Your task to perform on an android device: toggle airplane mode Image 0: 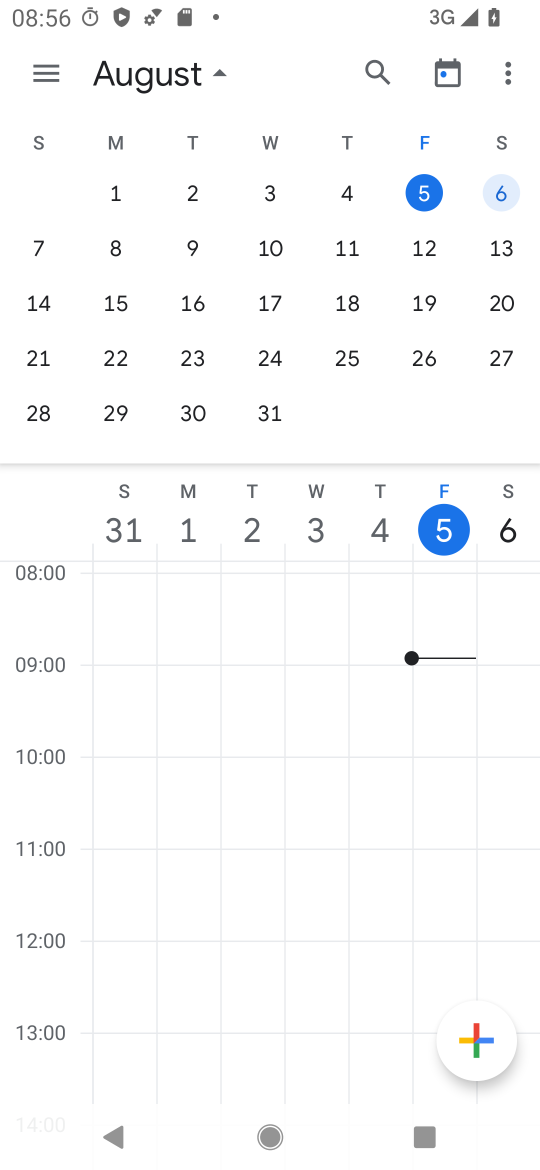
Step 0: press home button
Your task to perform on an android device: toggle airplane mode Image 1: 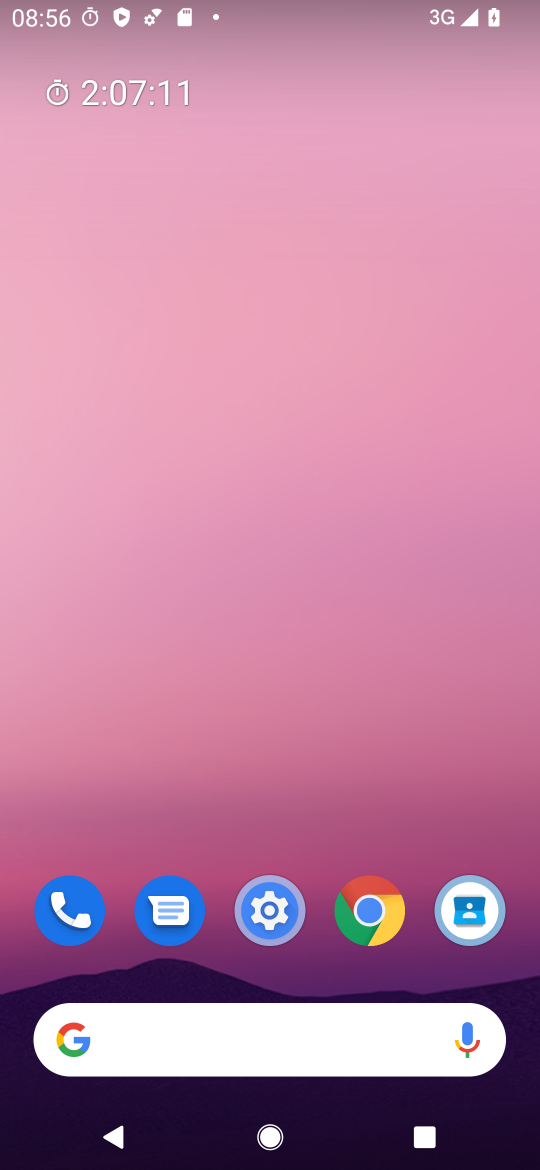
Step 1: drag from (345, 1026) to (409, 70)
Your task to perform on an android device: toggle airplane mode Image 2: 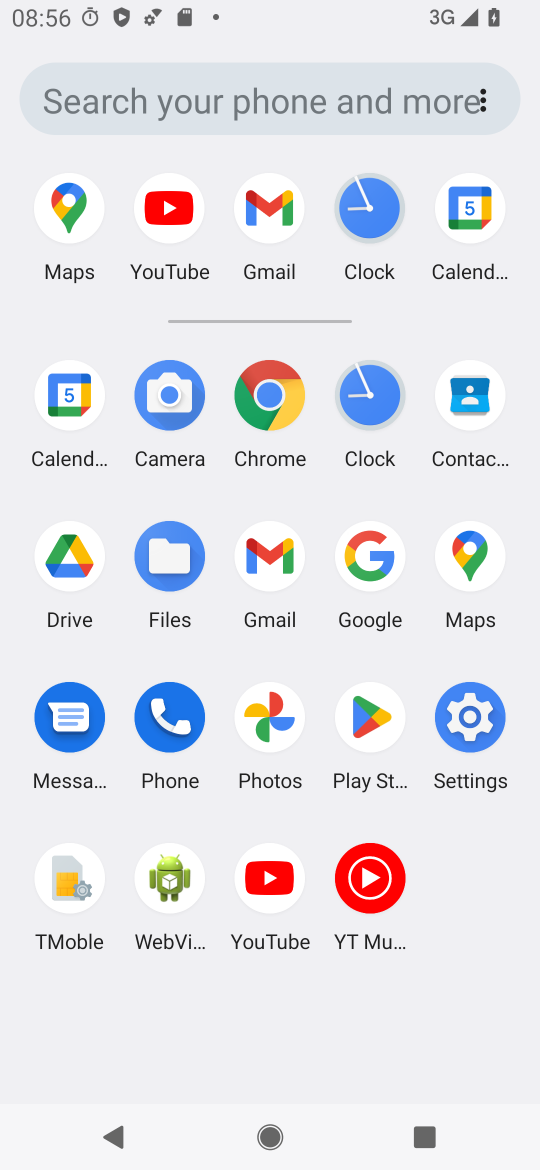
Step 2: click (482, 713)
Your task to perform on an android device: toggle airplane mode Image 3: 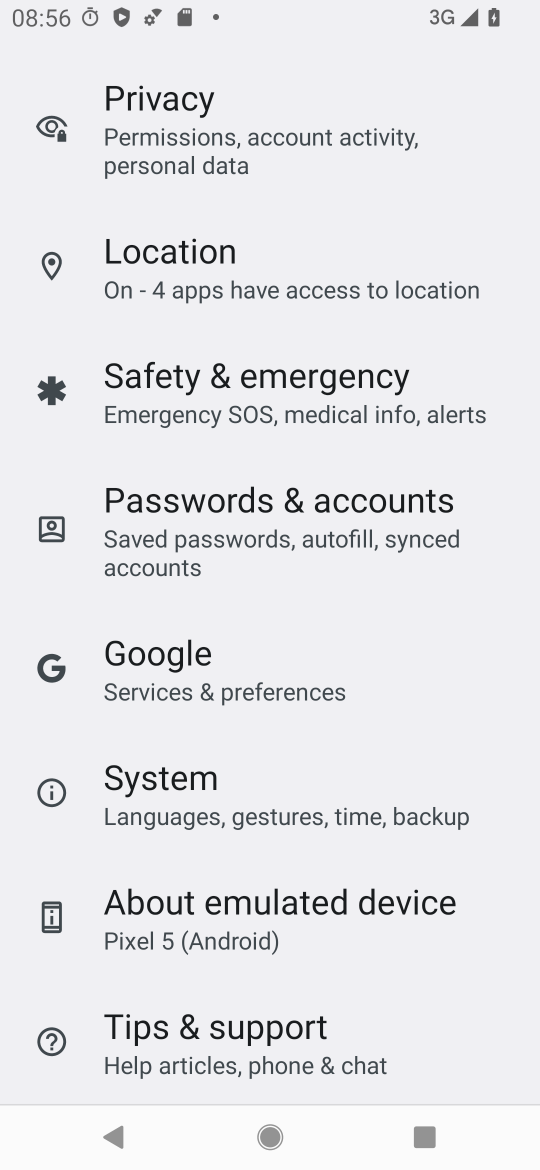
Step 3: drag from (469, 380) to (489, 990)
Your task to perform on an android device: toggle airplane mode Image 4: 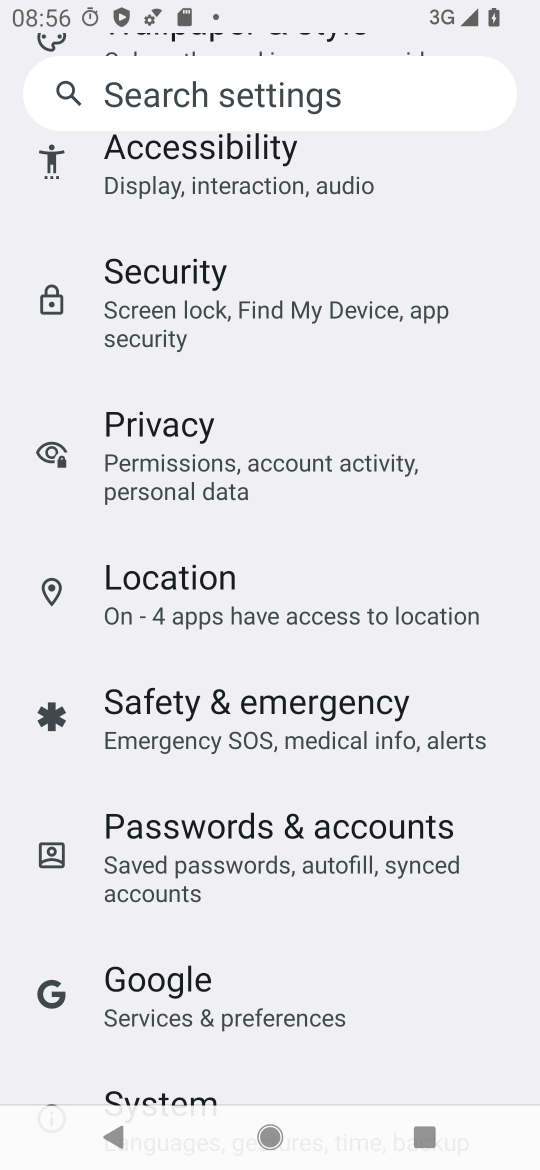
Step 4: drag from (279, 209) to (363, 827)
Your task to perform on an android device: toggle airplane mode Image 5: 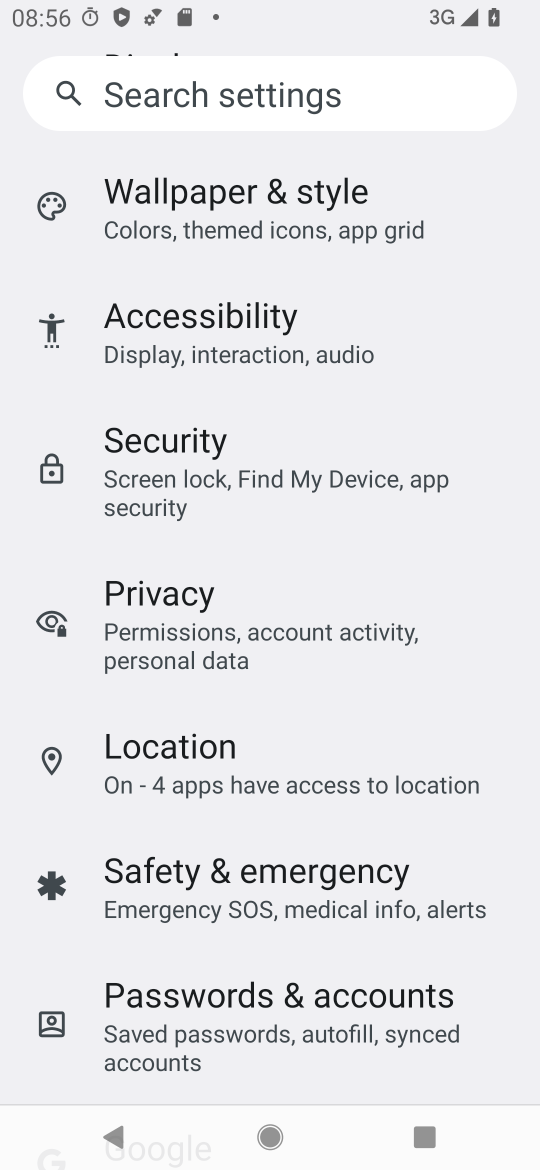
Step 5: drag from (329, 290) to (474, 893)
Your task to perform on an android device: toggle airplane mode Image 6: 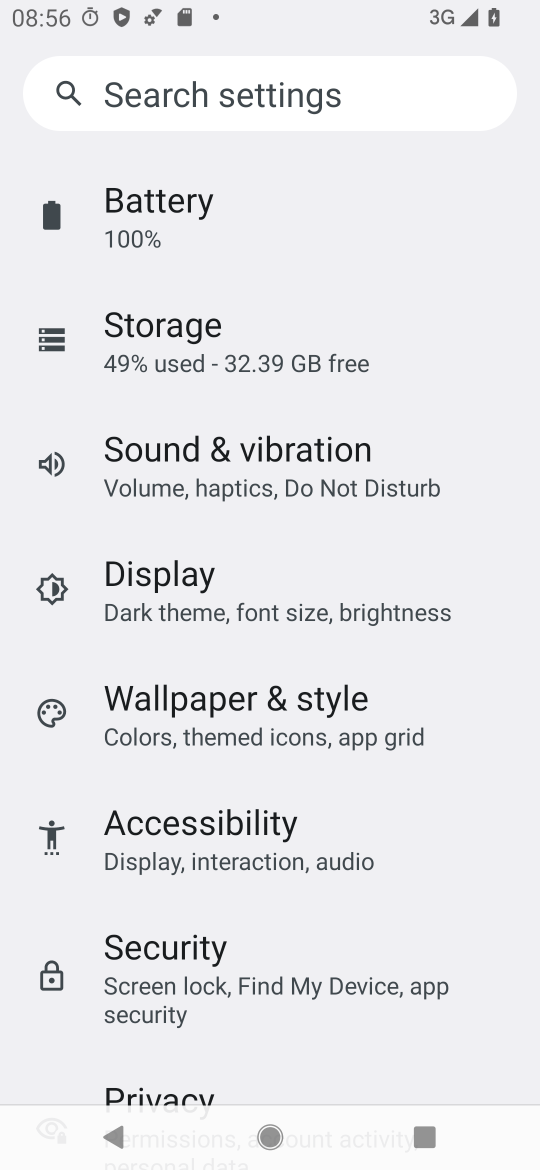
Step 6: drag from (413, 286) to (431, 907)
Your task to perform on an android device: toggle airplane mode Image 7: 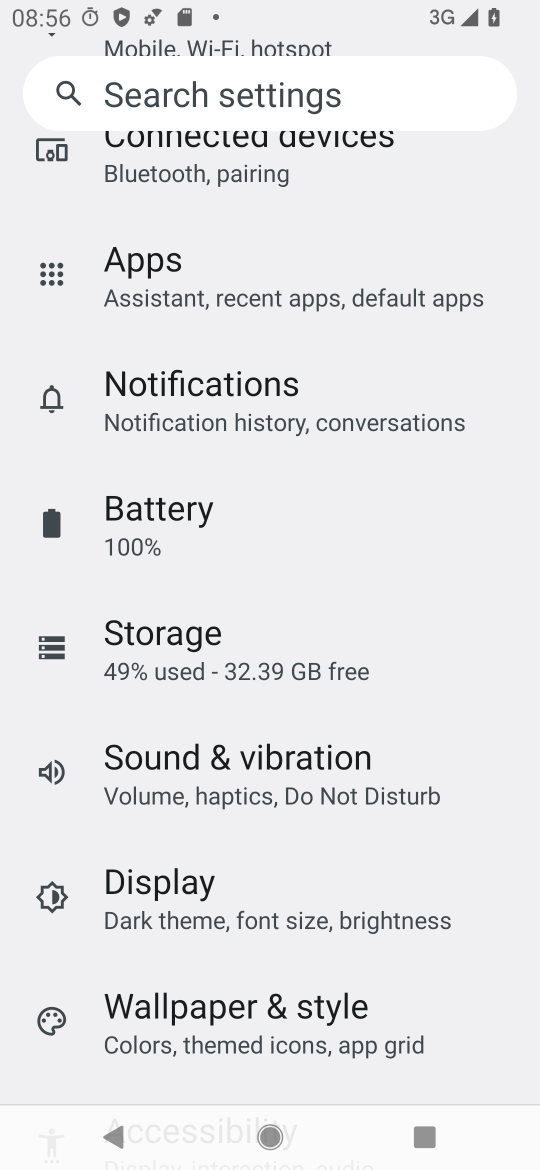
Step 7: drag from (414, 156) to (520, 1148)
Your task to perform on an android device: toggle airplane mode Image 8: 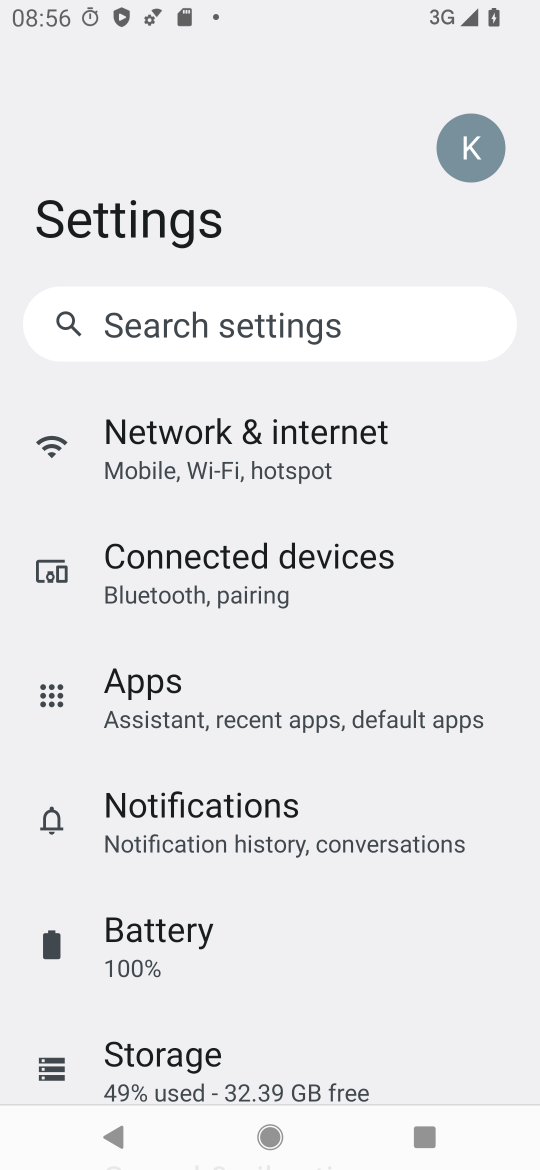
Step 8: click (280, 459)
Your task to perform on an android device: toggle airplane mode Image 9: 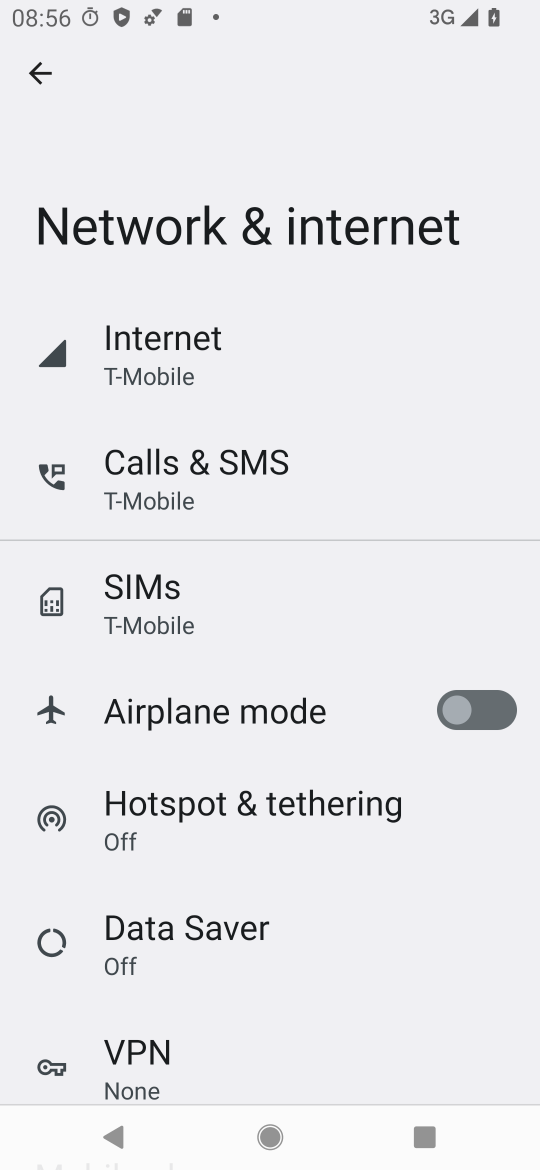
Step 9: click (511, 708)
Your task to perform on an android device: toggle airplane mode Image 10: 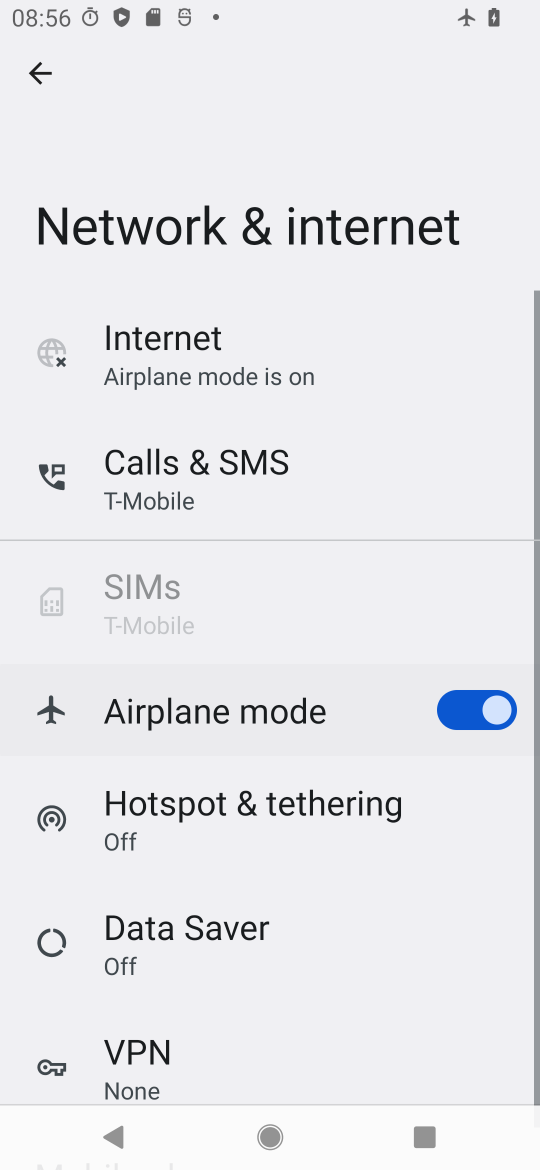
Step 10: task complete